Your task to perform on an android device: Go to Amazon Image 0: 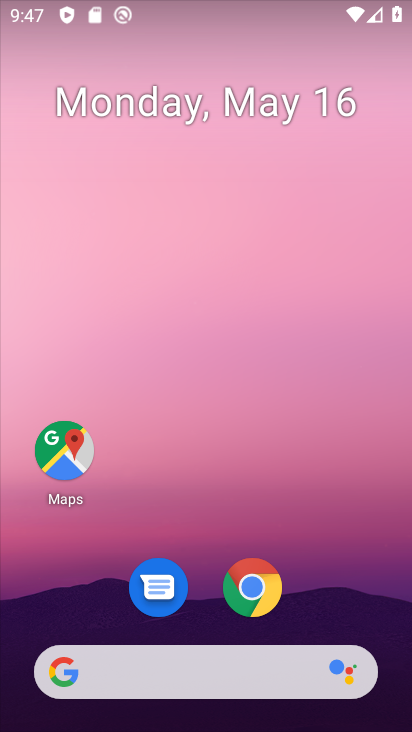
Step 0: click (253, 581)
Your task to perform on an android device: Go to Amazon Image 1: 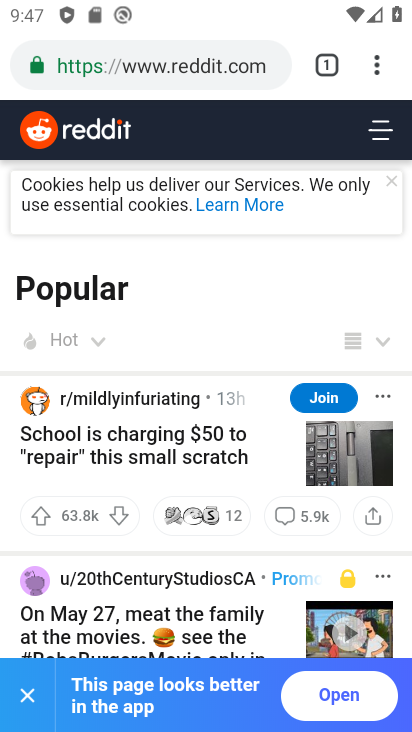
Step 1: click (311, 70)
Your task to perform on an android device: Go to Amazon Image 2: 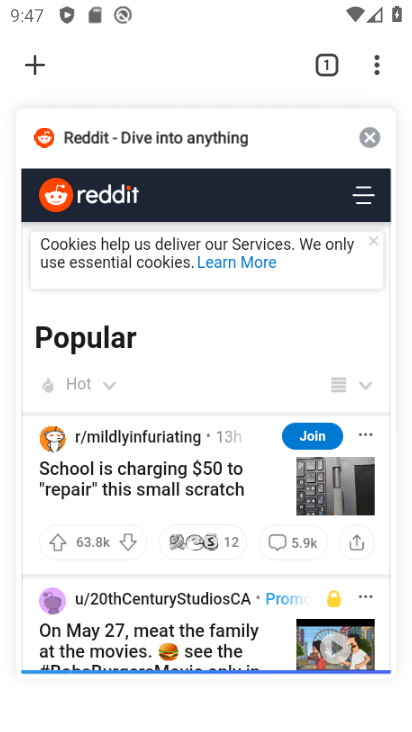
Step 2: click (31, 60)
Your task to perform on an android device: Go to Amazon Image 3: 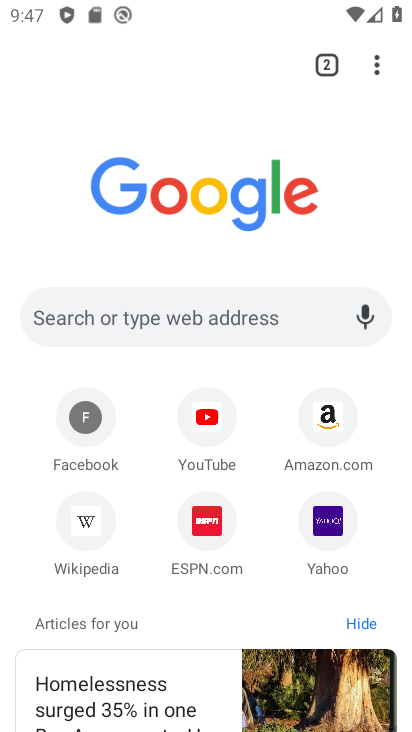
Step 3: click (328, 410)
Your task to perform on an android device: Go to Amazon Image 4: 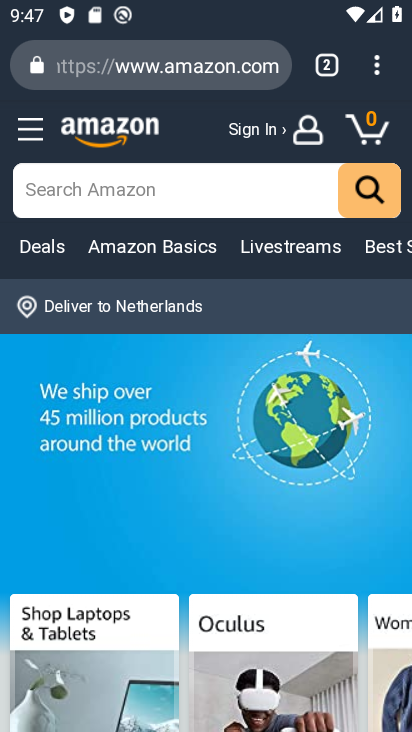
Step 4: task complete